Your task to perform on an android device: uninstall "Contacts" Image 0: 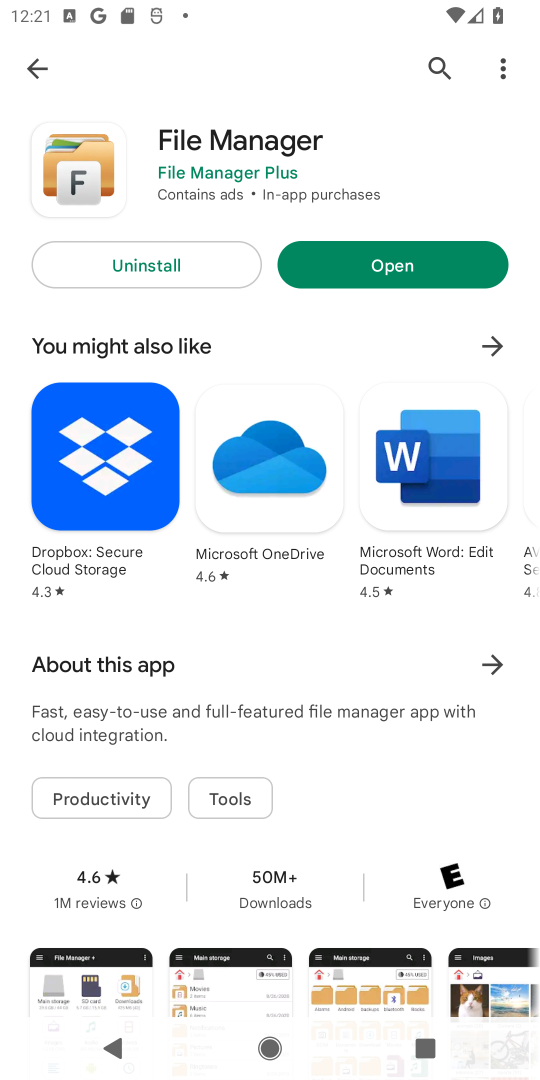
Step 0: press home button
Your task to perform on an android device: uninstall "Contacts" Image 1: 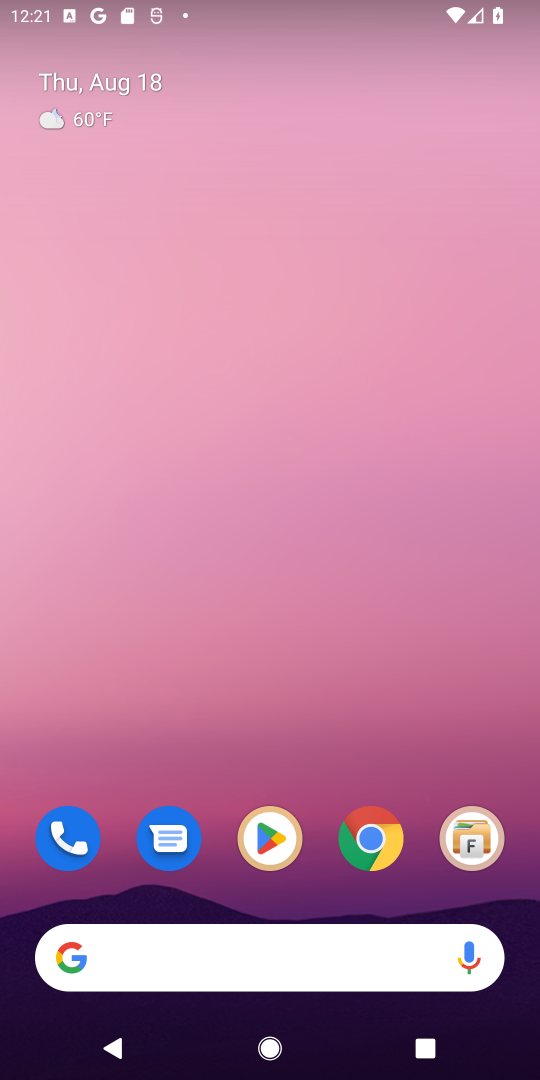
Step 1: click (270, 824)
Your task to perform on an android device: uninstall "Contacts" Image 2: 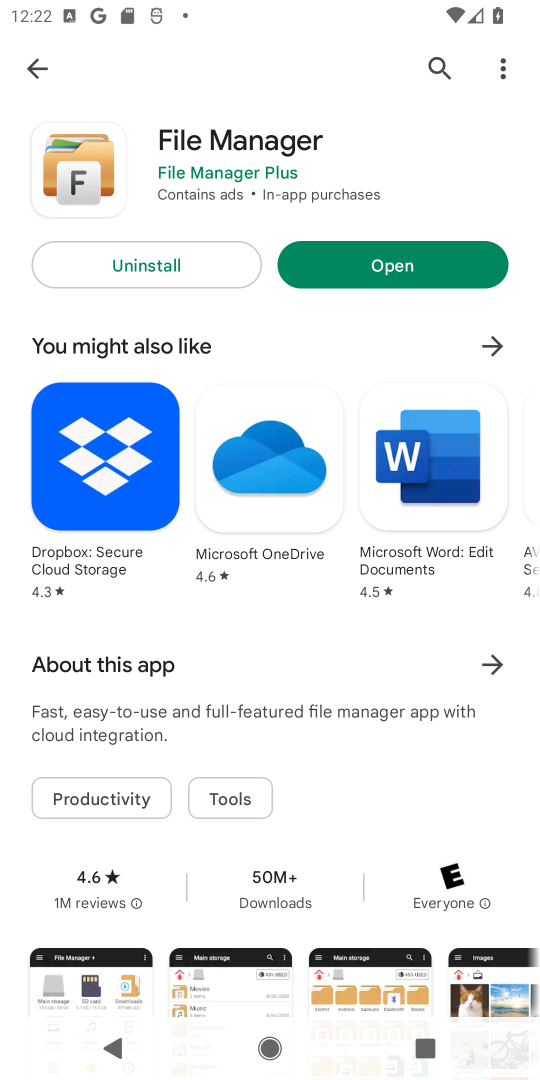
Step 2: click (436, 65)
Your task to perform on an android device: uninstall "Contacts" Image 3: 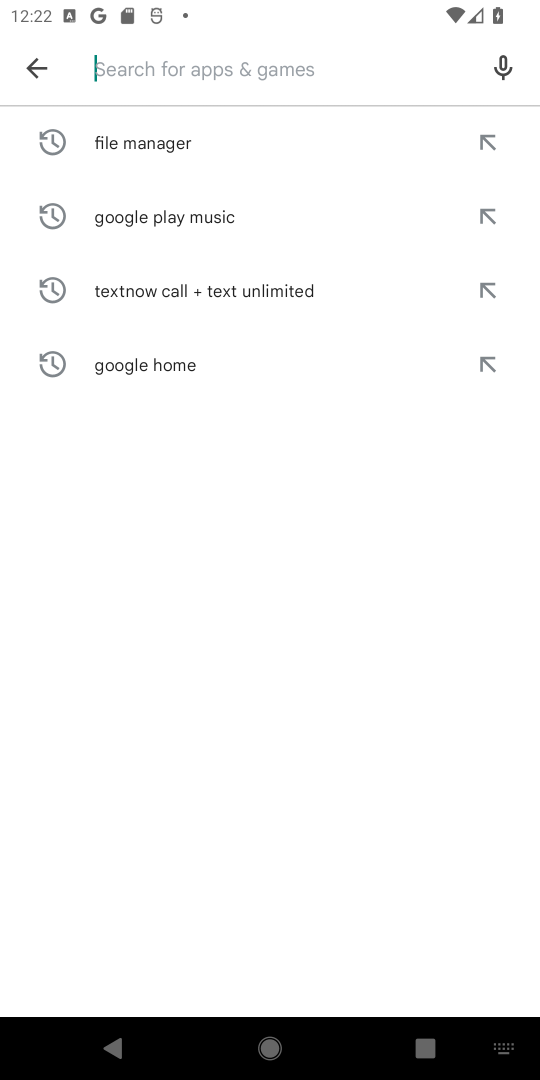
Step 3: type "Contacts"
Your task to perform on an android device: uninstall "Contacts" Image 4: 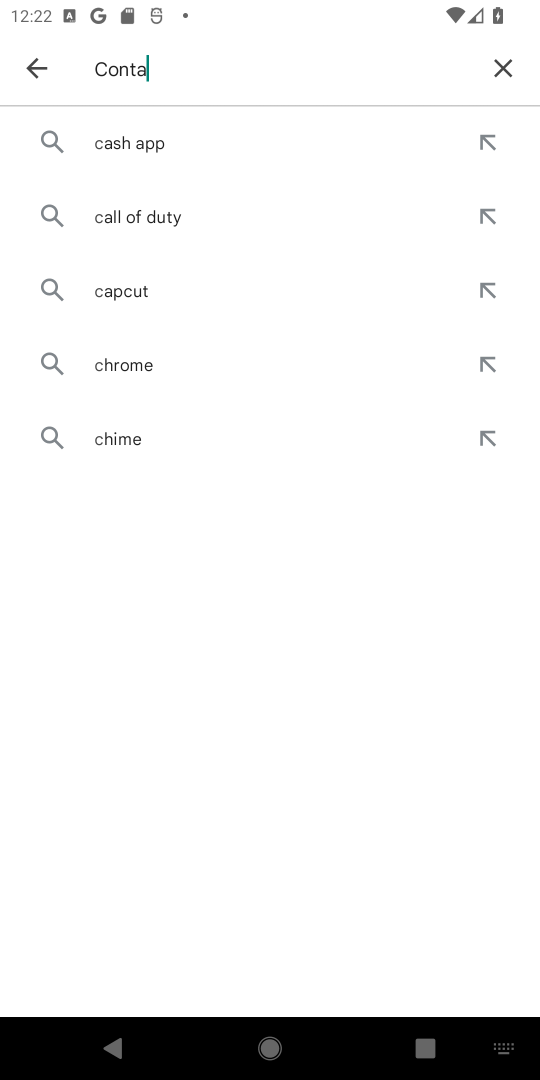
Step 4: type ""
Your task to perform on an android device: uninstall "Contacts" Image 5: 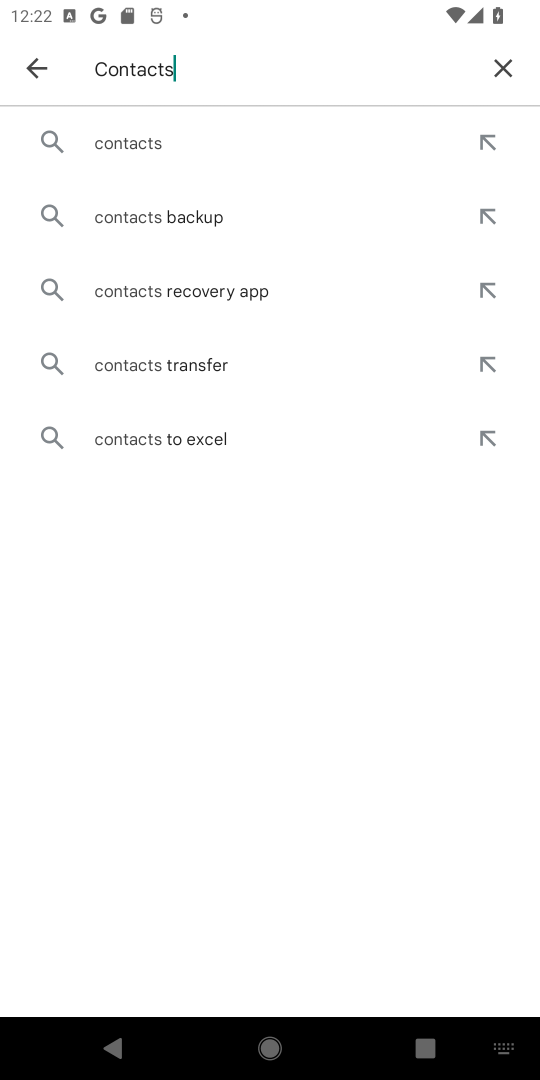
Step 5: click (128, 143)
Your task to perform on an android device: uninstall "Contacts" Image 6: 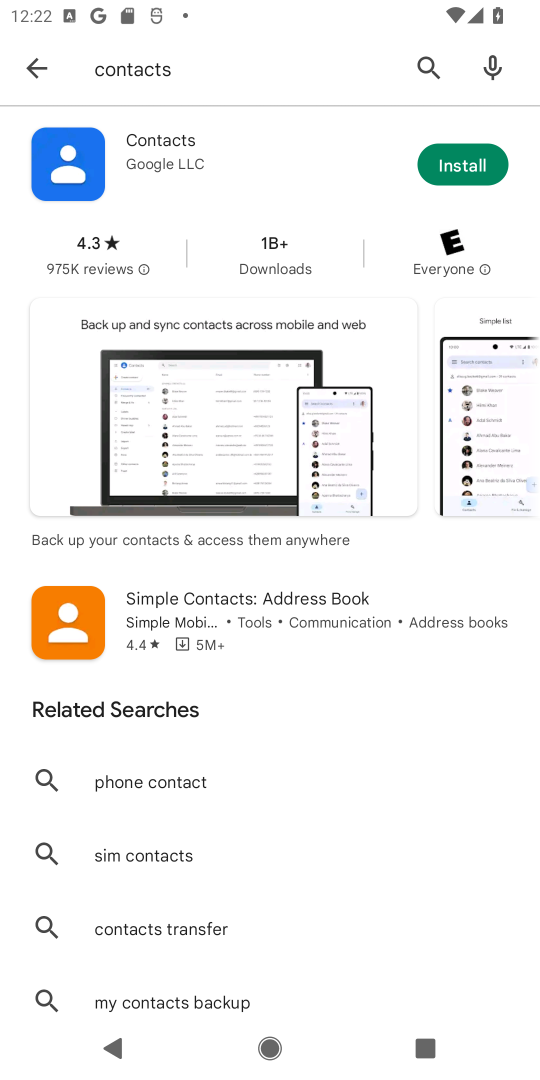
Step 6: task complete